Your task to perform on an android device: turn smart compose on in the gmail app Image 0: 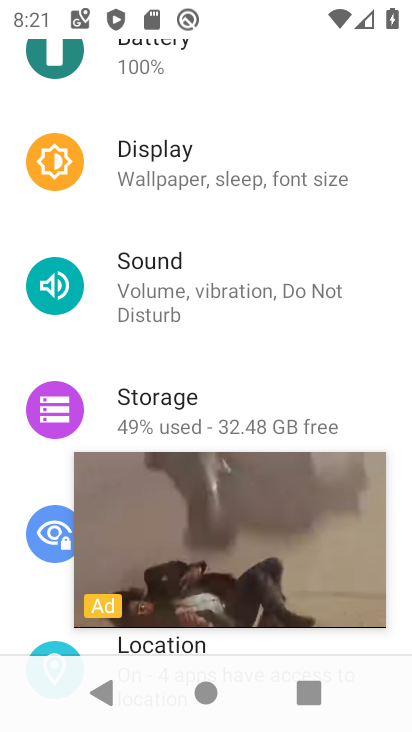
Step 0: click (348, 493)
Your task to perform on an android device: turn smart compose on in the gmail app Image 1: 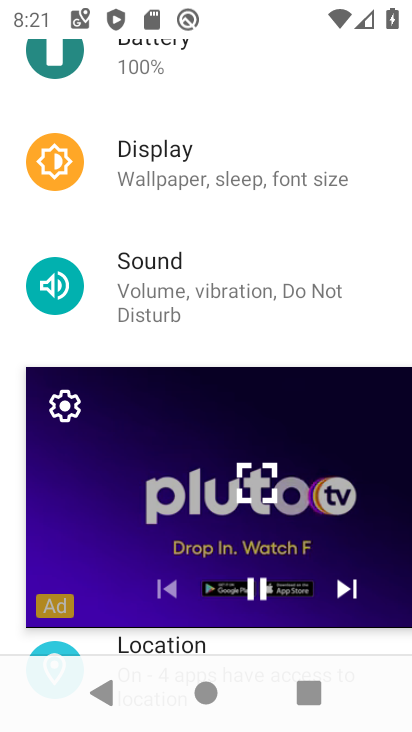
Step 1: click (257, 484)
Your task to perform on an android device: turn smart compose on in the gmail app Image 2: 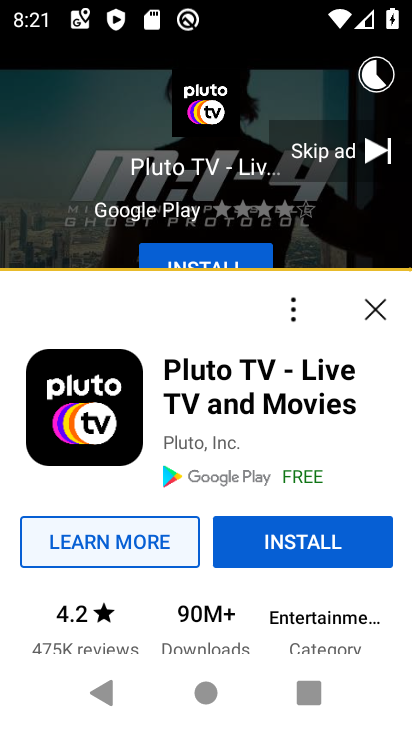
Step 2: click (370, 316)
Your task to perform on an android device: turn smart compose on in the gmail app Image 3: 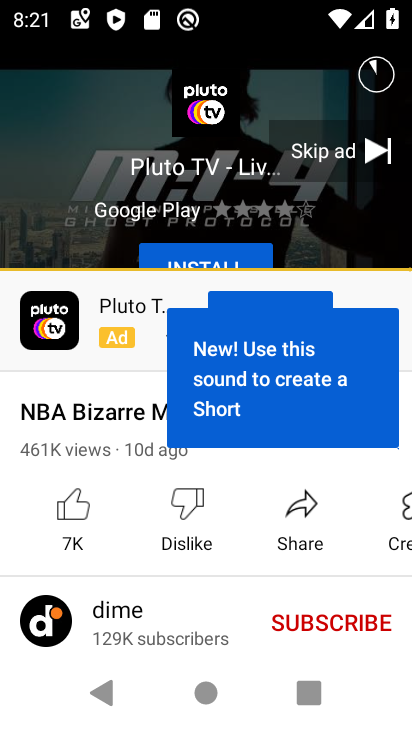
Step 3: click (315, 150)
Your task to perform on an android device: turn smart compose on in the gmail app Image 4: 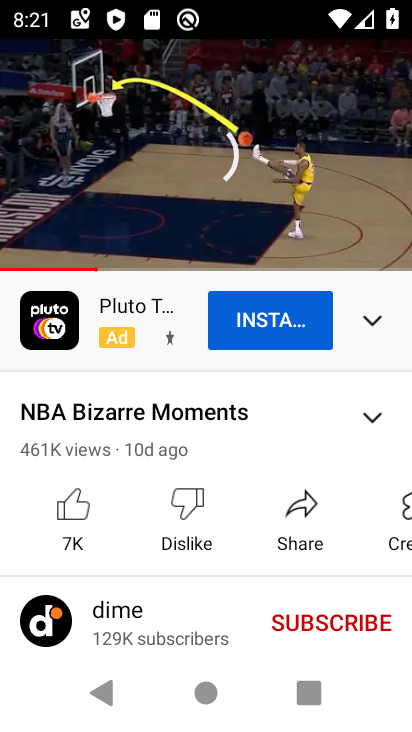
Step 4: click (225, 130)
Your task to perform on an android device: turn smart compose on in the gmail app Image 5: 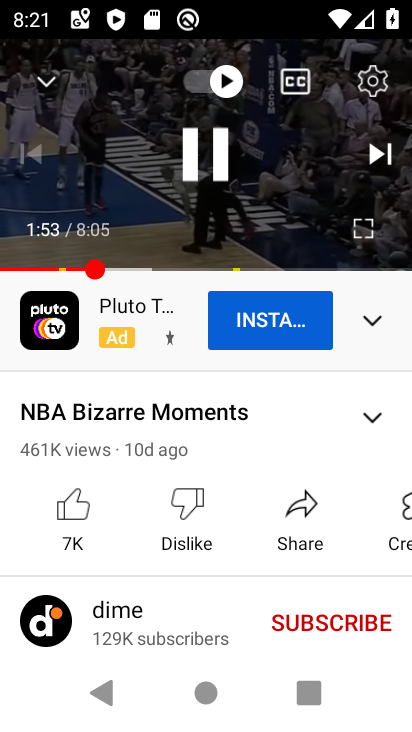
Step 5: click (208, 143)
Your task to perform on an android device: turn smart compose on in the gmail app Image 6: 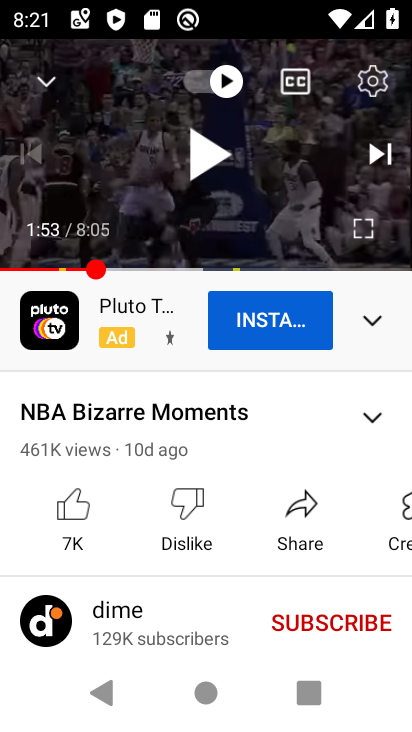
Step 6: press home button
Your task to perform on an android device: turn smart compose on in the gmail app Image 7: 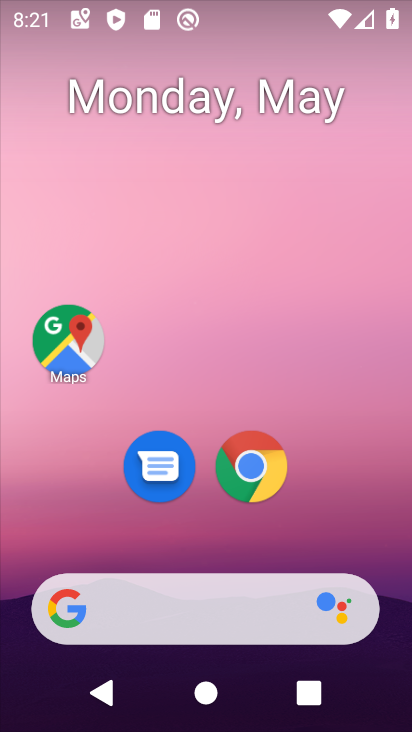
Step 7: drag from (250, 647) to (328, 8)
Your task to perform on an android device: turn smart compose on in the gmail app Image 8: 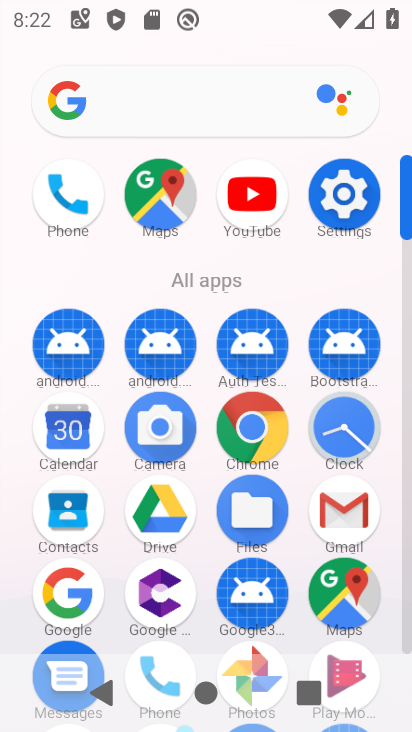
Step 8: click (338, 516)
Your task to perform on an android device: turn smart compose on in the gmail app Image 9: 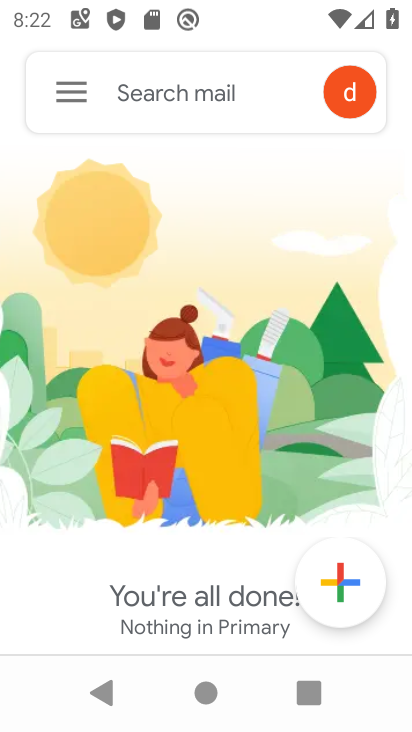
Step 9: click (64, 94)
Your task to perform on an android device: turn smart compose on in the gmail app Image 10: 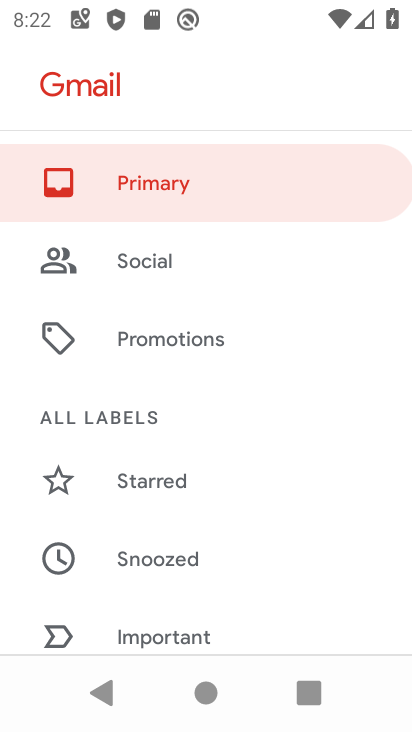
Step 10: drag from (209, 516) to (230, 5)
Your task to perform on an android device: turn smart compose on in the gmail app Image 11: 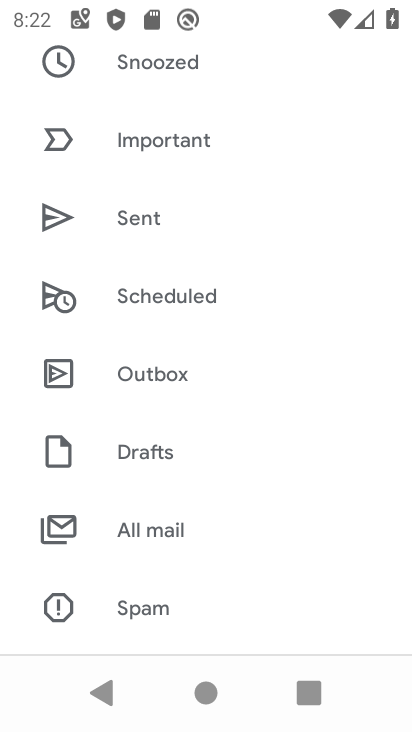
Step 11: drag from (167, 485) to (254, 0)
Your task to perform on an android device: turn smart compose on in the gmail app Image 12: 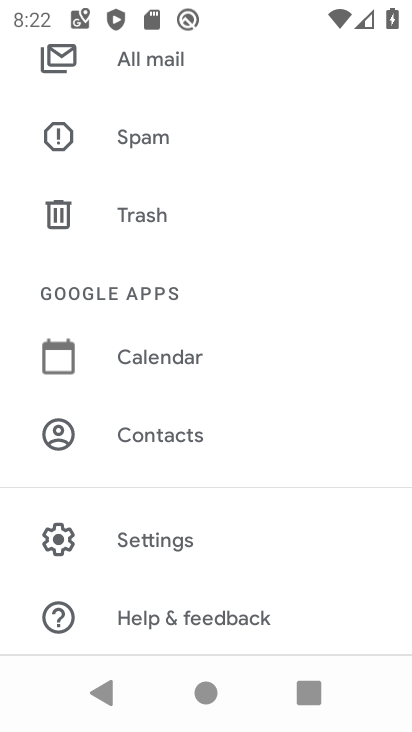
Step 12: click (169, 530)
Your task to perform on an android device: turn smart compose on in the gmail app Image 13: 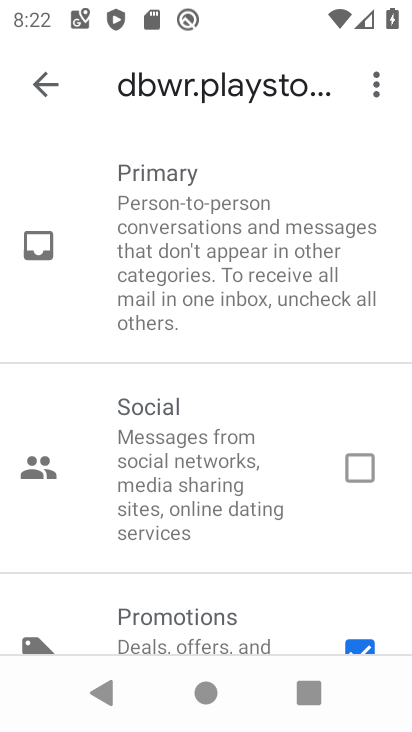
Step 13: click (52, 72)
Your task to perform on an android device: turn smart compose on in the gmail app Image 14: 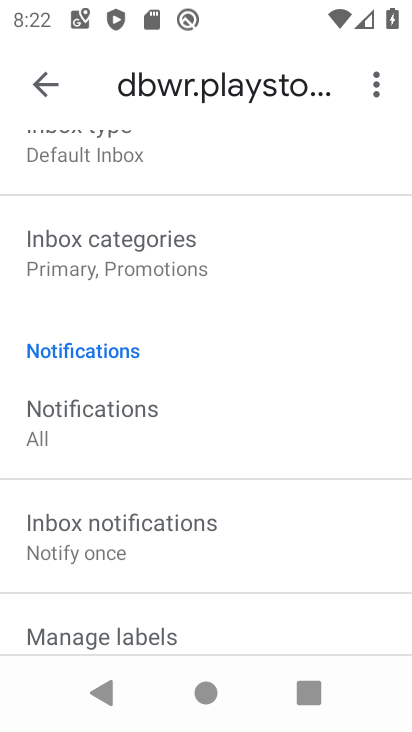
Step 14: drag from (175, 506) to (210, 72)
Your task to perform on an android device: turn smart compose on in the gmail app Image 15: 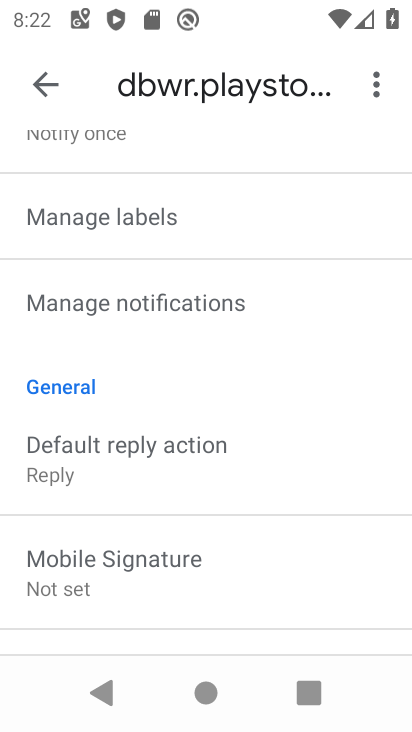
Step 15: drag from (173, 495) to (174, 241)
Your task to perform on an android device: turn smart compose on in the gmail app Image 16: 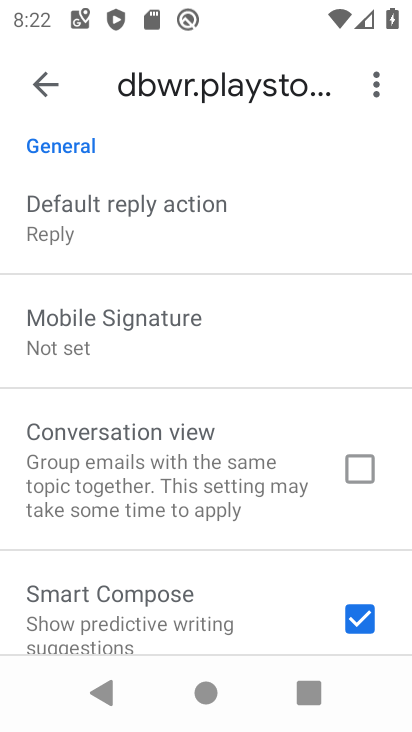
Step 16: drag from (152, 516) to (200, 170)
Your task to perform on an android device: turn smart compose on in the gmail app Image 17: 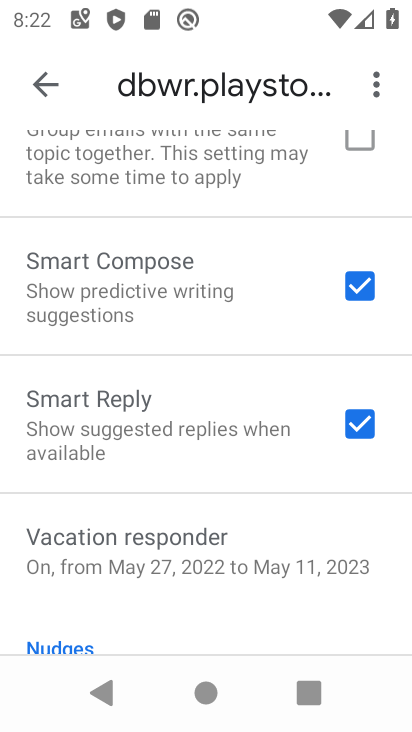
Step 17: click (157, 281)
Your task to perform on an android device: turn smart compose on in the gmail app Image 18: 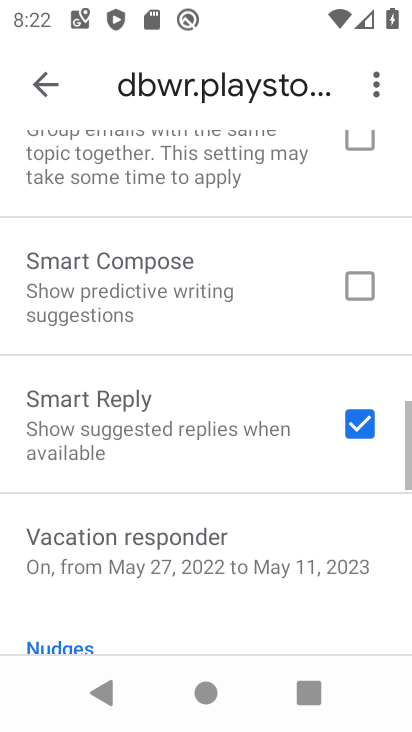
Step 18: click (157, 281)
Your task to perform on an android device: turn smart compose on in the gmail app Image 19: 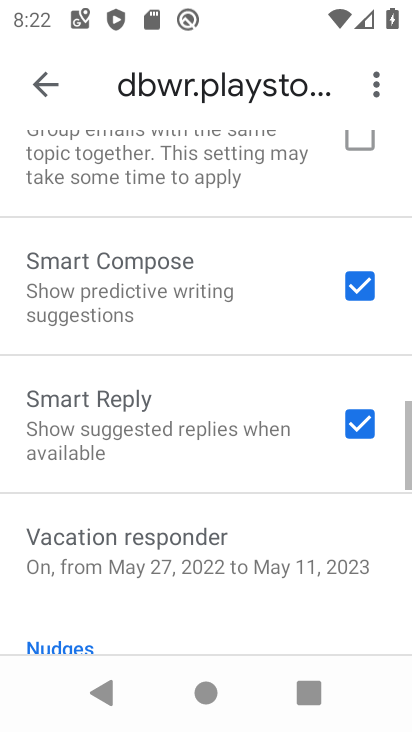
Step 19: task complete